Your task to perform on an android device: change timer sound Image 0: 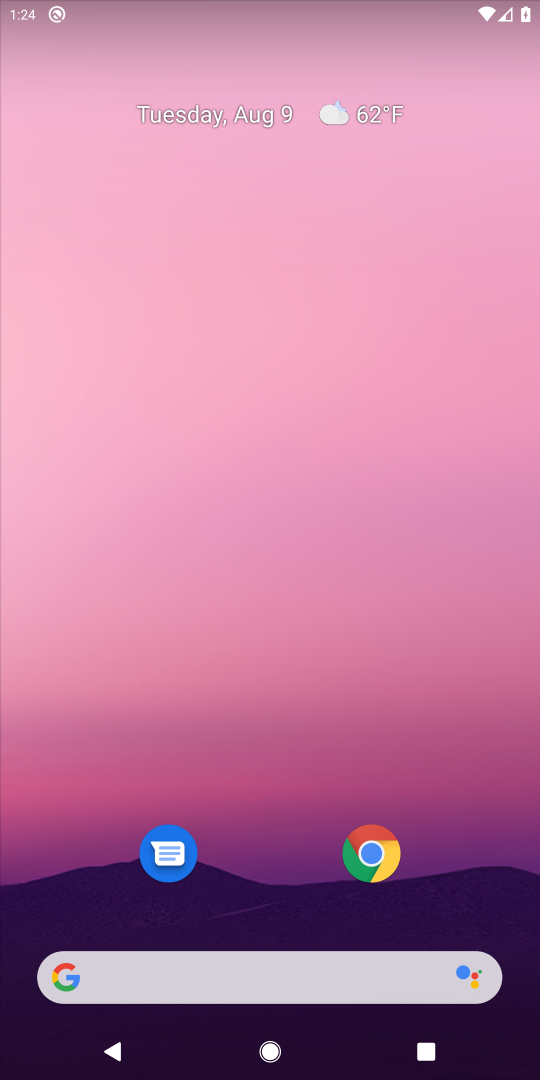
Step 0: press home button
Your task to perform on an android device: change timer sound Image 1: 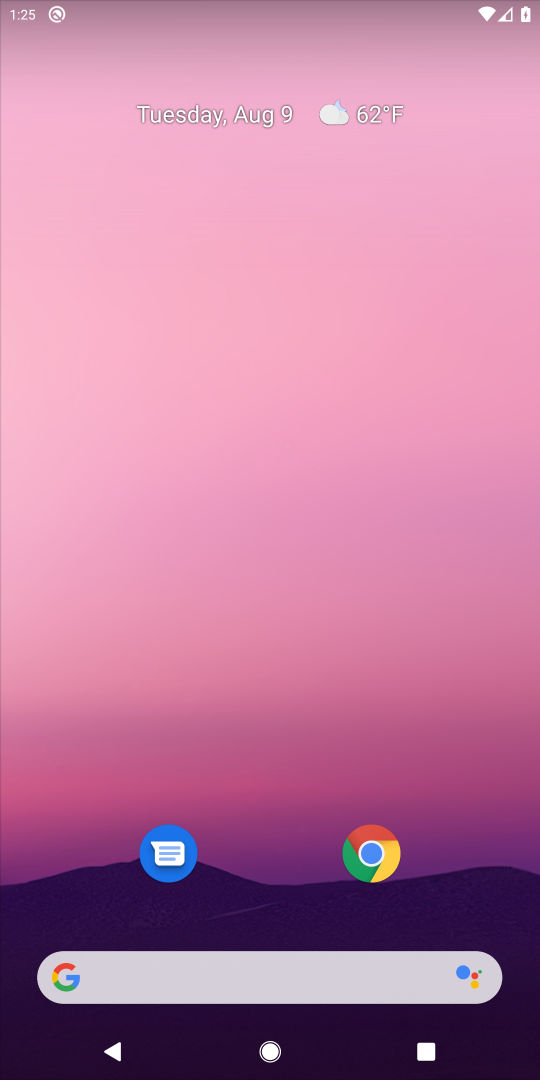
Step 1: drag from (300, 830) to (226, 182)
Your task to perform on an android device: change timer sound Image 2: 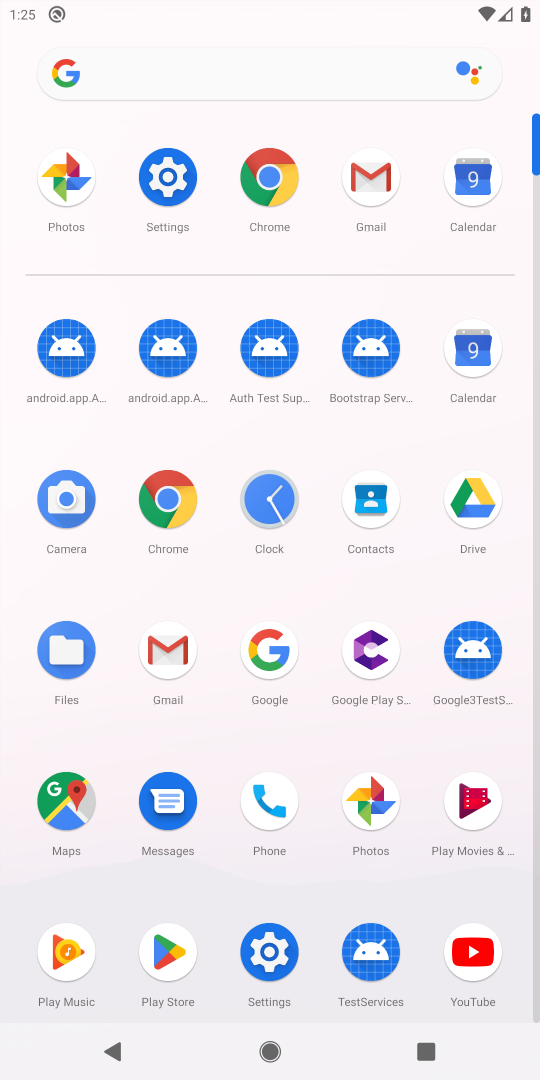
Step 2: click (269, 486)
Your task to perform on an android device: change timer sound Image 3: 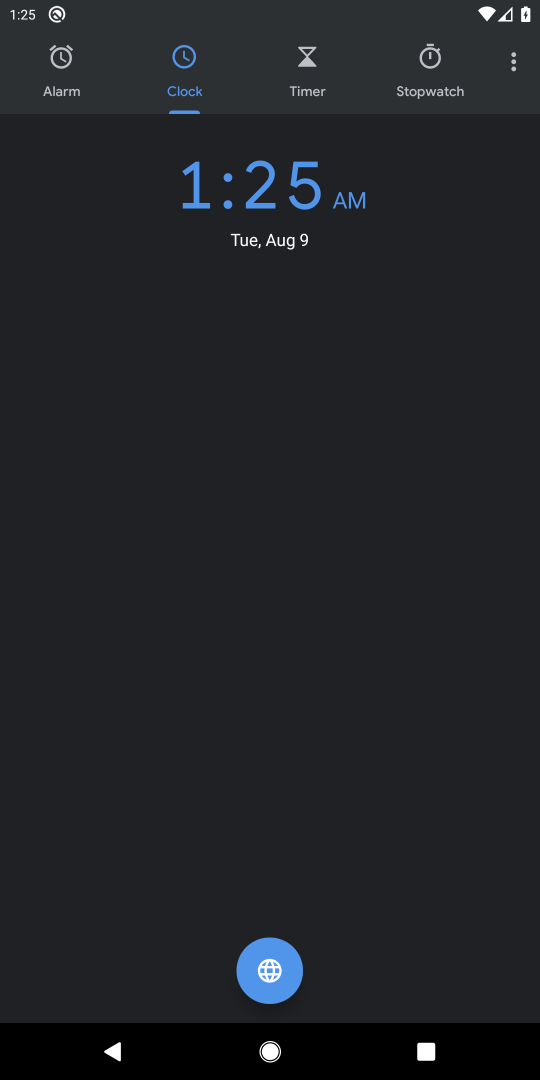
Step 3: click (512, 68)
Your task to perform on an android device: change timer sound Image 4: 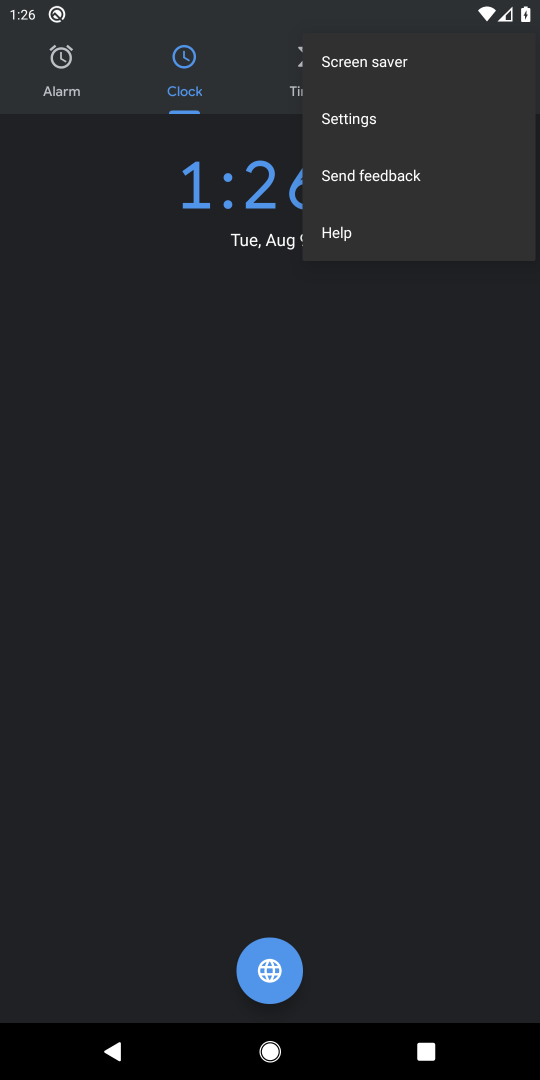
Step 4: click (364, 121)
Your task to perform on an android device: change timer sound Image 5: 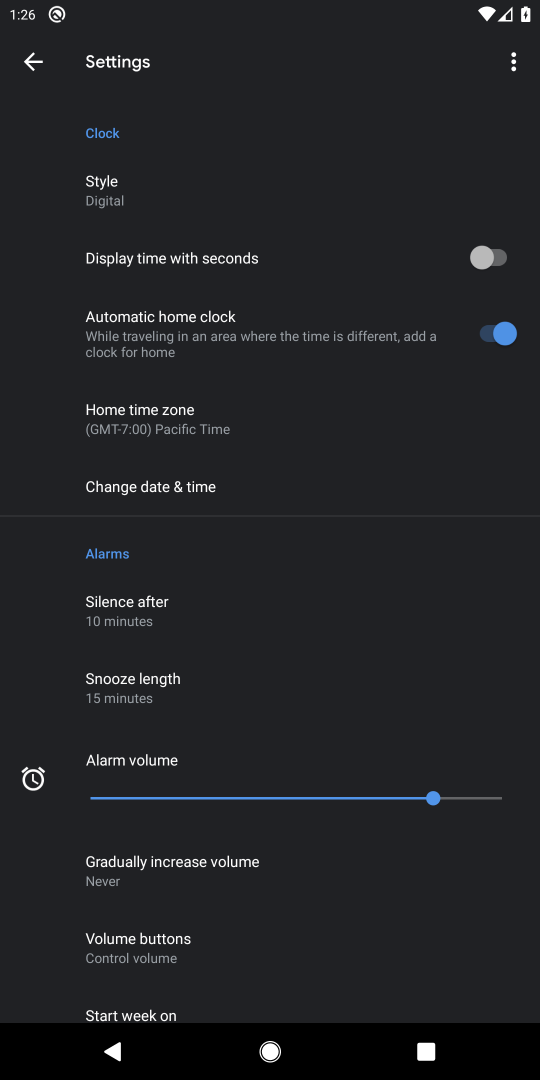
Step 5: drag from (337, 582) to (311, 61)
Your task to perform on an android device: change timer sound Image 6: 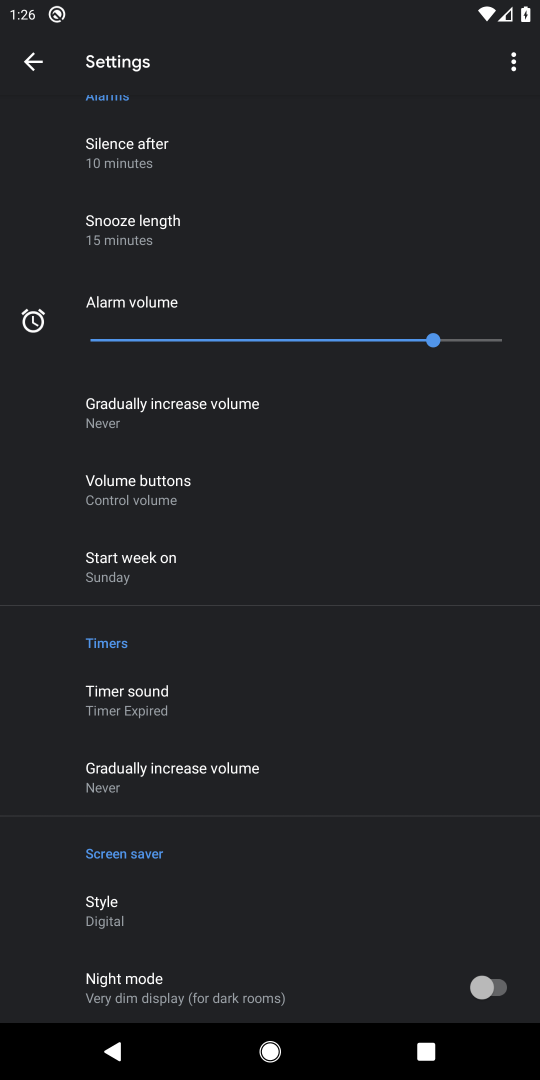
Step 6: click (151, 705)
Your task to perform on an android device: change timer sound Image 7: 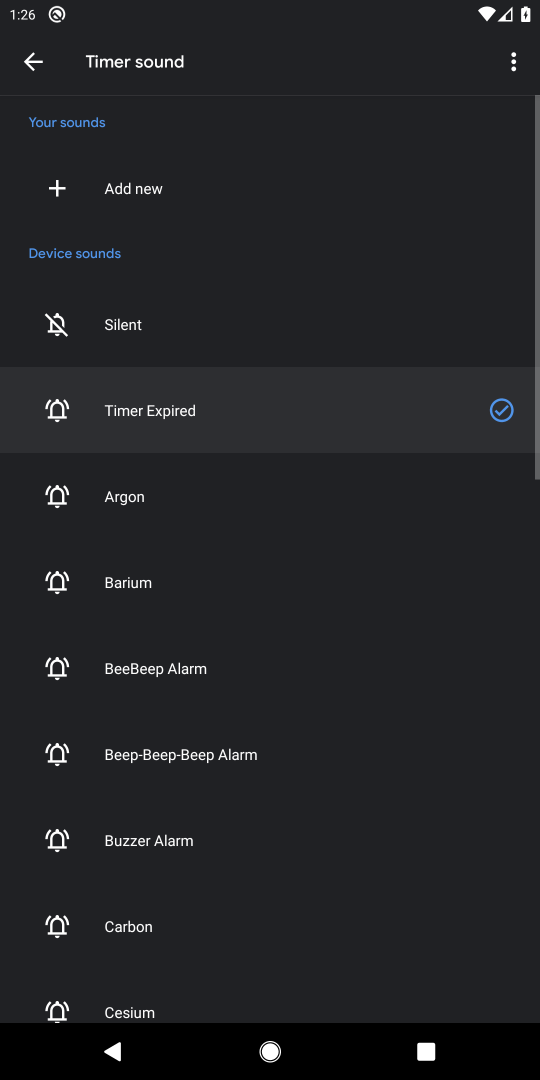
Step 7: click (64, 596)
Your task to perform on an android device: change timer sound Image 8: 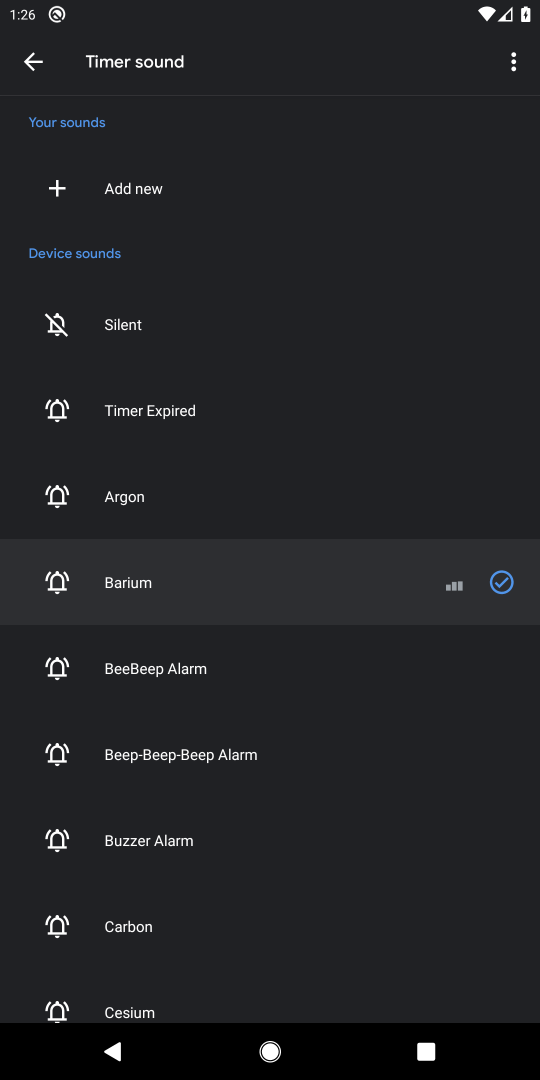
Step 8: task complete